Your task to perform on an android device: check out phone information Image 0: 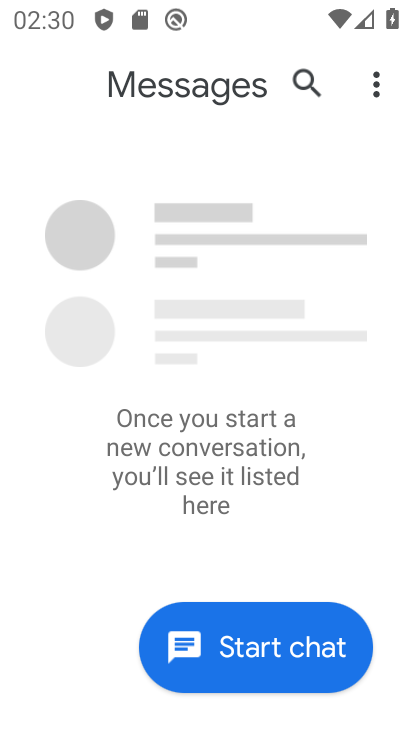
Step 0: press back button
Your task to perform on an android device: check out phone information Image 1: 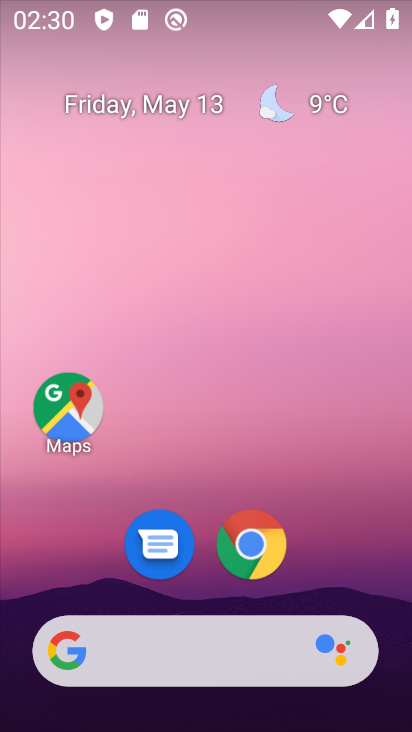
Step 1: drag from (376, 511) to (209, 23)
Your task to perform on an android device: check out phone information Image 2: 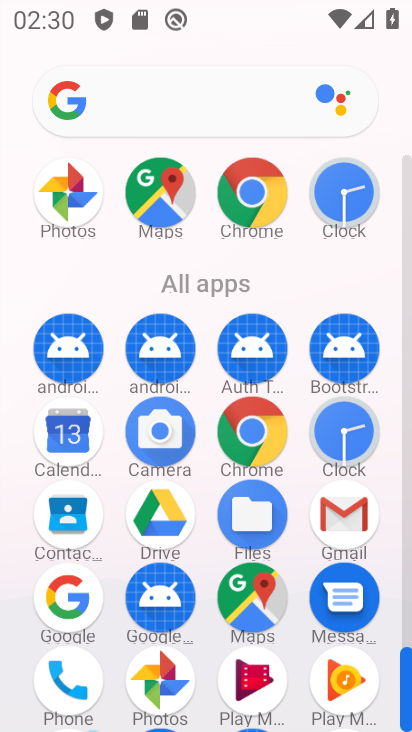
Step 2: drag from (23, 557) to (1, 244)
Your task to perform on an android device: check out phone information Image 3: 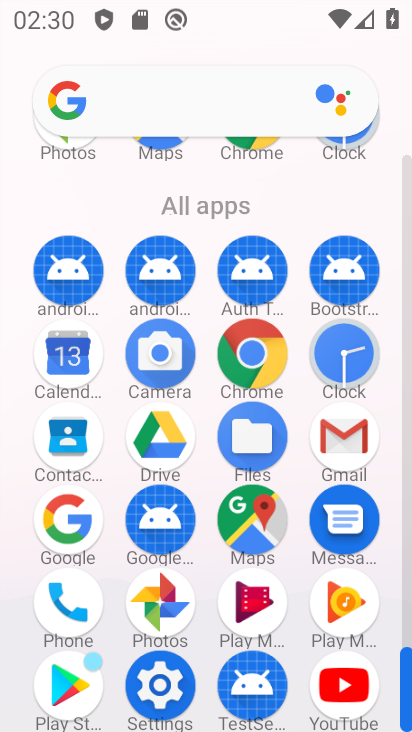
Step 3: click (158, 682)
Your task to perform on an android device: check out phone information Image 4: 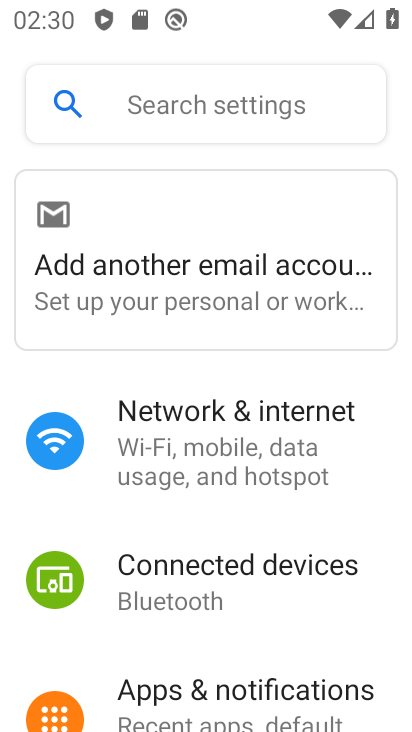
Step 4: drag from (261, 665) to (246, 282)
Your task to perform on an android device: check out phone information Image 5: 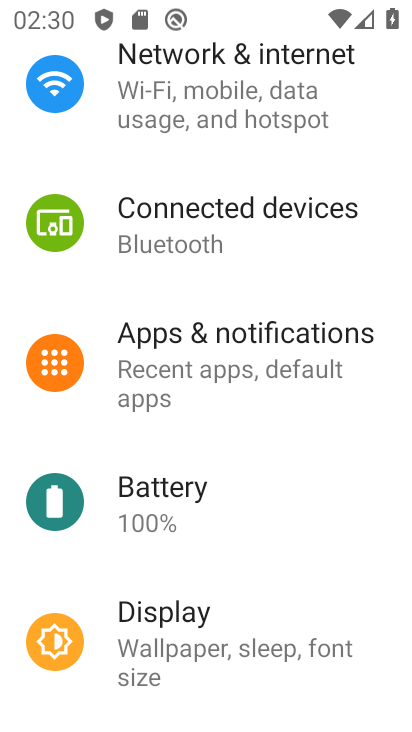
Step 5: drag from (306, 575) to (279, 147)
Your task to perform on an android device: check out phone information Image 6: 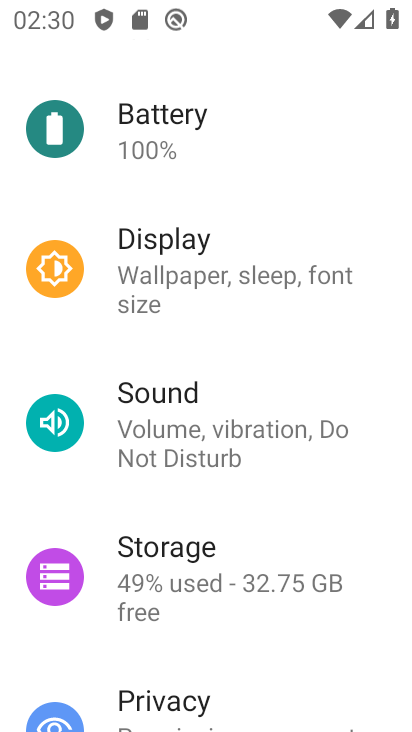
Step 6: drag from (290, 513) to (292, 124)
Your task to perform on an android device: check out phone information Image 7: 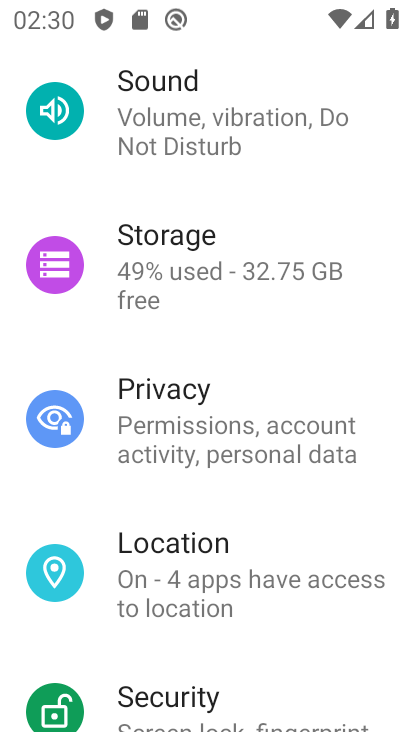
Step 7: drag from (295, 516) to (279, 149)
Your task to perform on an android device: check out phone information Image 8: 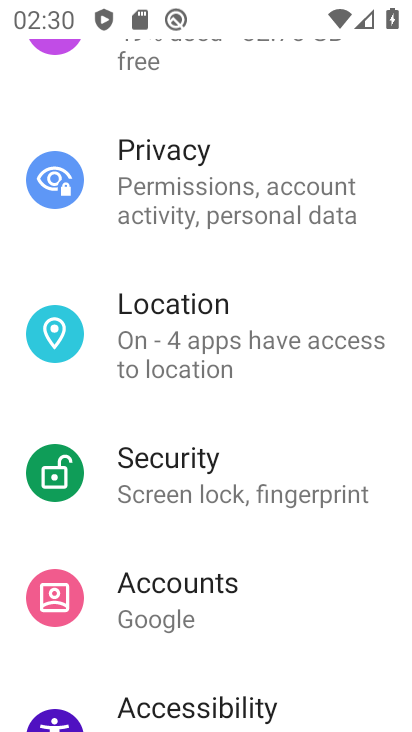
Step 8: drag from (294, 606) to (287, 108)
Your task to perform on an android device: check out phone information Image 9: 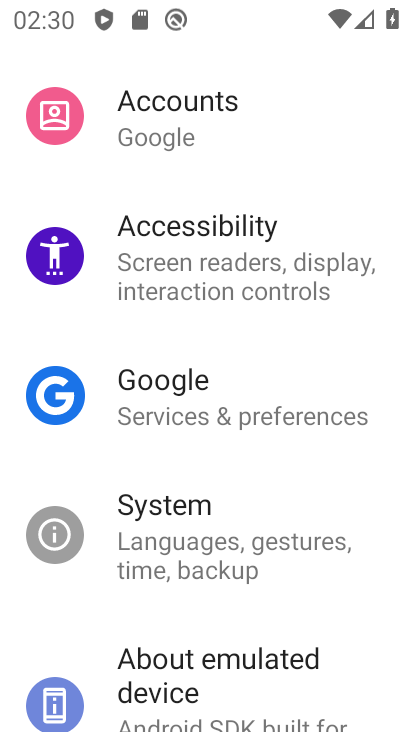
Step 9: drag from (294, 612) to (310, 166)
Your task to perform on an android device: check out phone information Image 10: 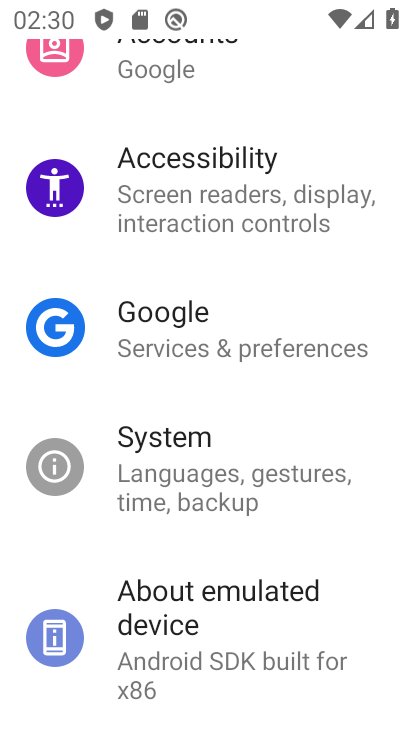
Step 10: click (222, 602)
Your task to perform on an android device: check out phone information Image 11: 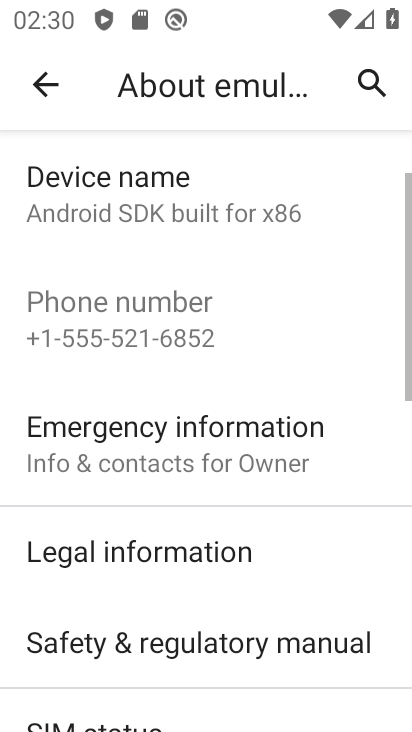
Step 11: task complete